Your task to perform on an android device: Clear the cart on bestbuy.com. Add acer predator to the cart on bestbuy.com Image 0: 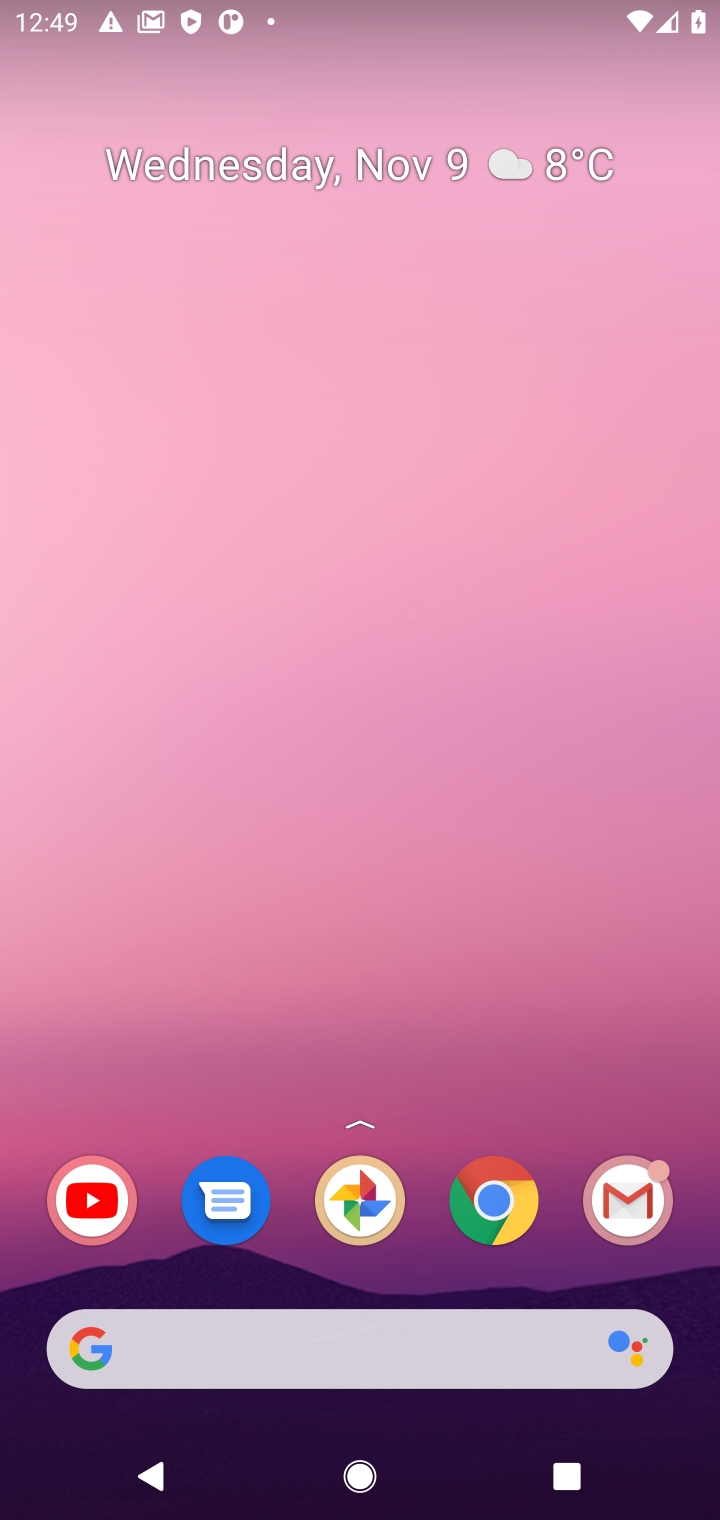
Step 0: click (193, 1393)
Your task to perform on an android device: Clear the cart on bestbuy.com. Add acer predator to the cart on bestbuy.com Image 1: 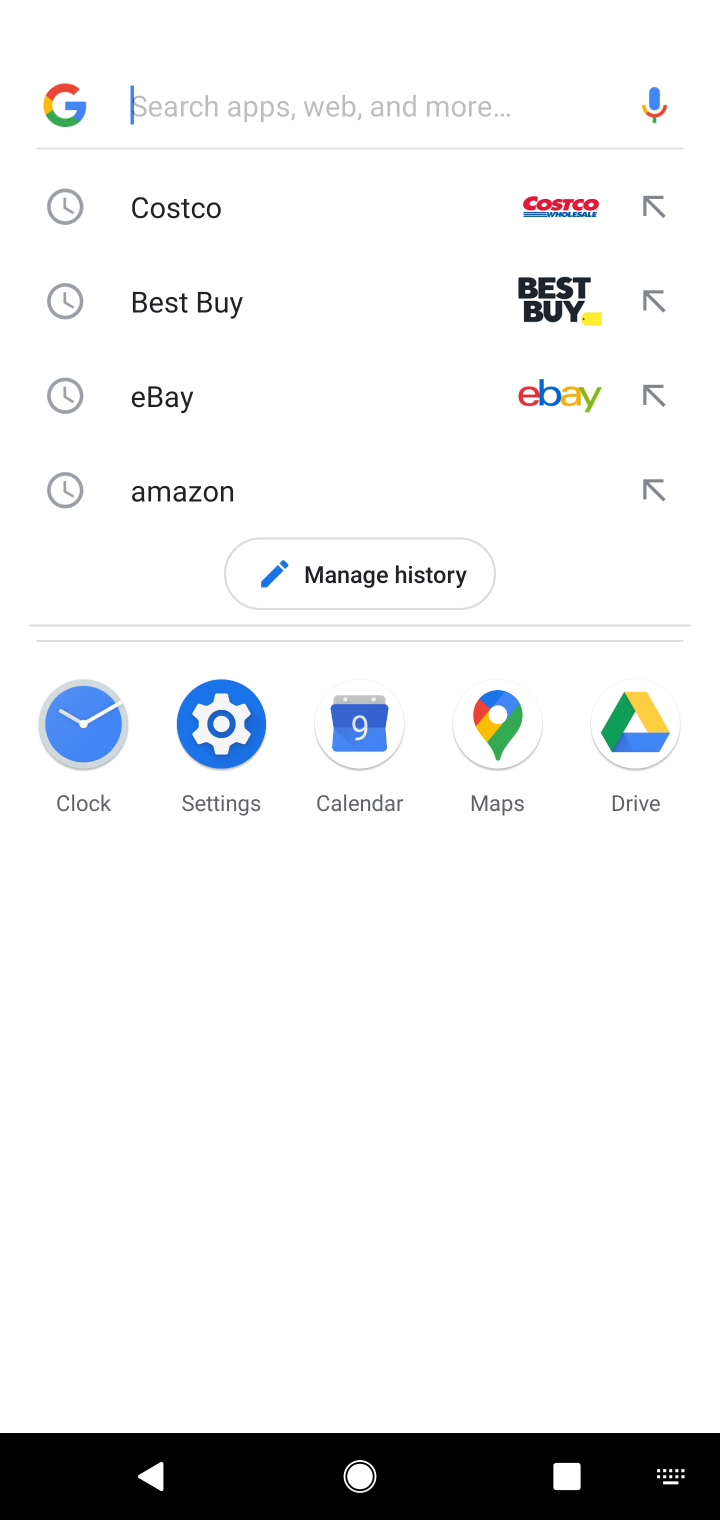
Step 1: click (438, 285)
Your task to perform on an android device: Clear the cart on bestbuy.com. Add acer predator to the cart on bestbuy.com Image 2: 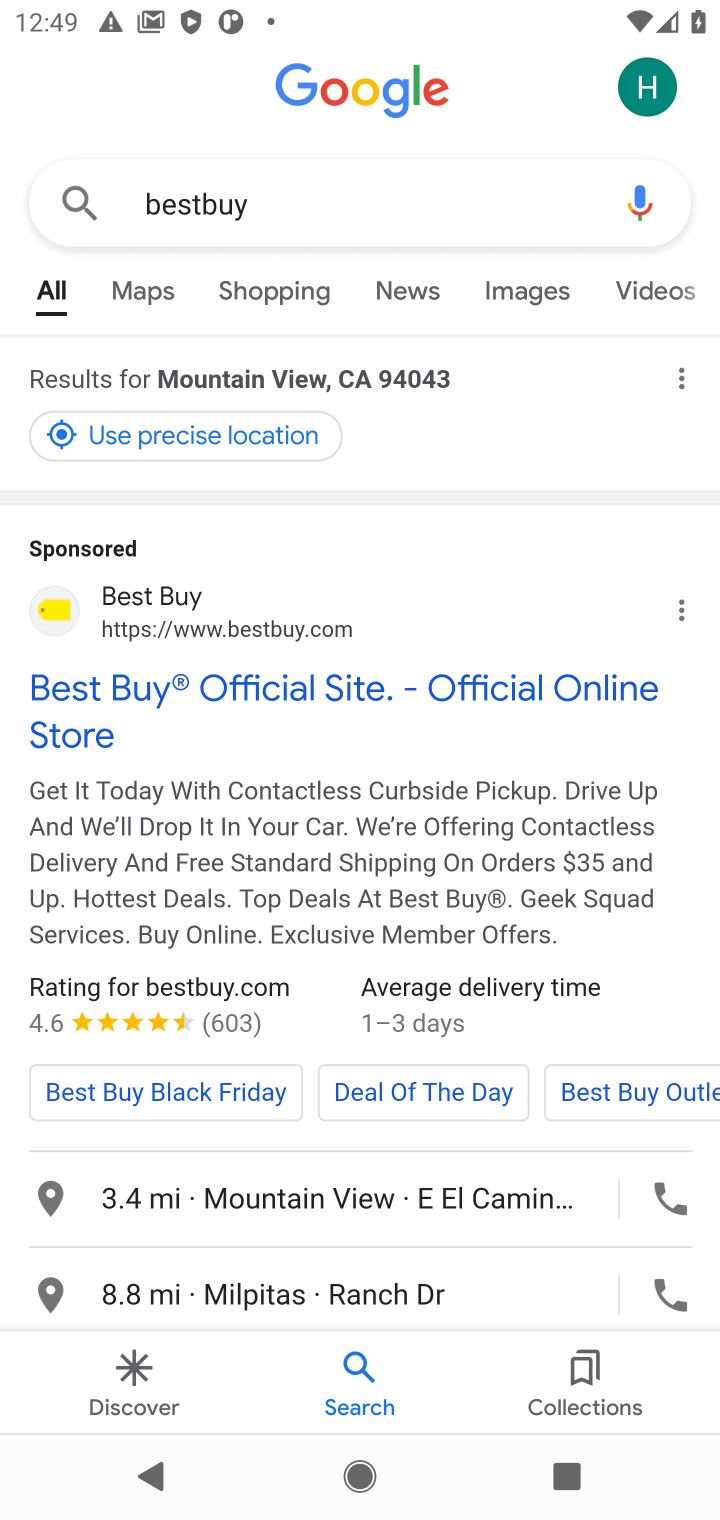
Step 2: click (43, 749)
Your task to perform on an android device: Clear the cart on bestbuy.com. Add acer predator to the cart on bestbuy.com Image 3: 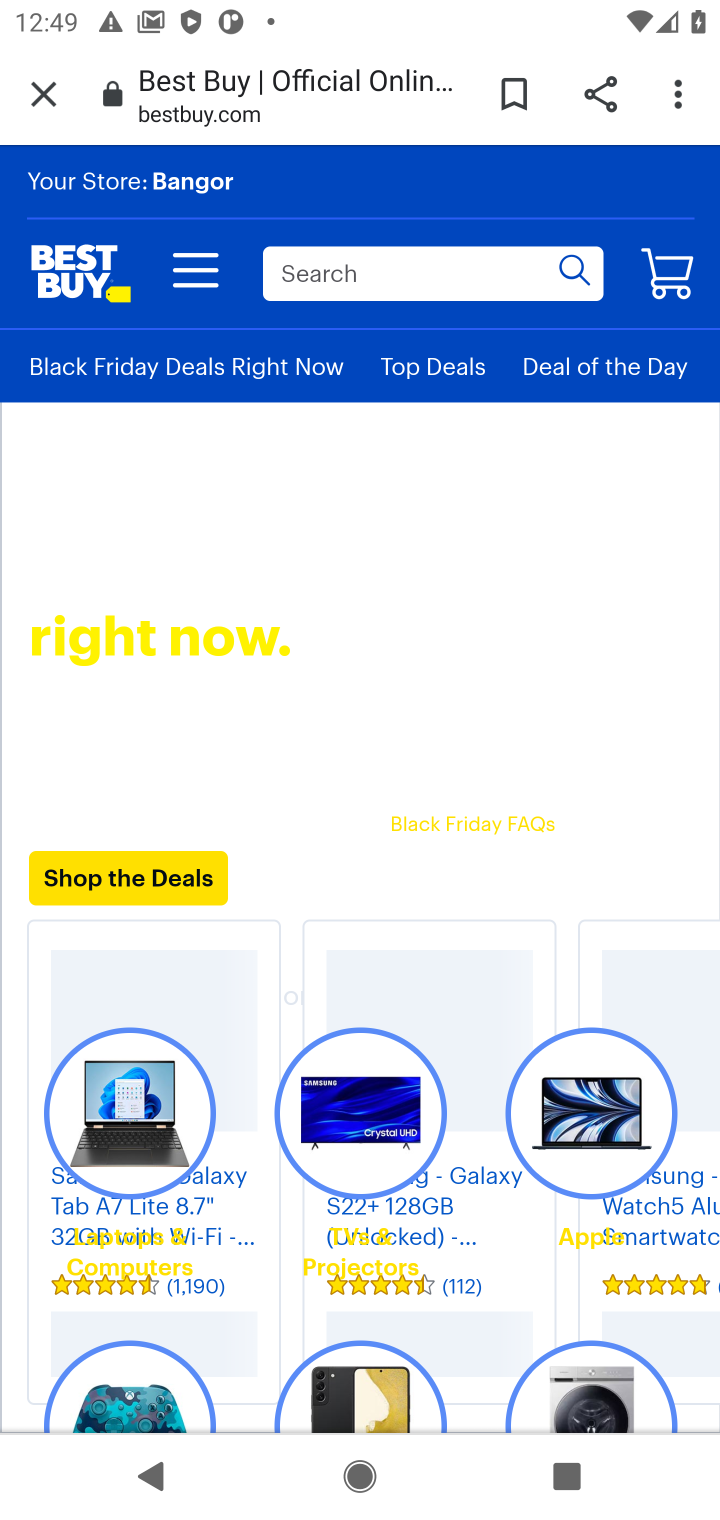
Step 3: task complete